Your task to perform on an android device: Open calendar and show me the first week of next month Image 0: 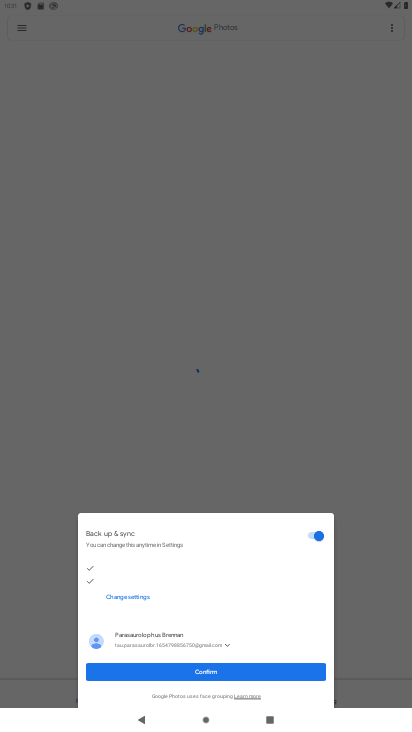
Step 0: press home button
Your task to perform on an android device: Open calendar and show me the first week of next month Image 1: 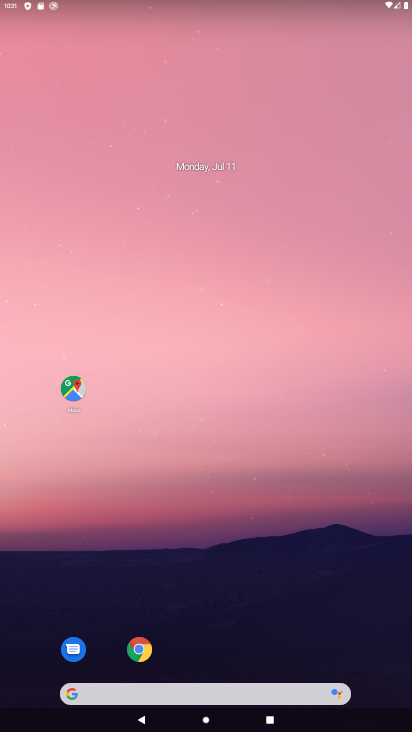
Step 1: drag from (305, 596) to (283, 130)
Your task to perform on an android device: Open calendar and show me the first week of next month Image 2: 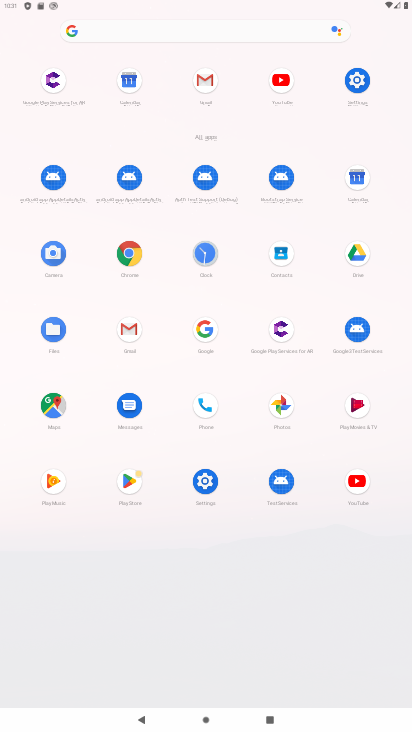
Step 2: click (353, 177)
Your task to perform on an android device: Open calendar and show me the first week of next month Image 3: 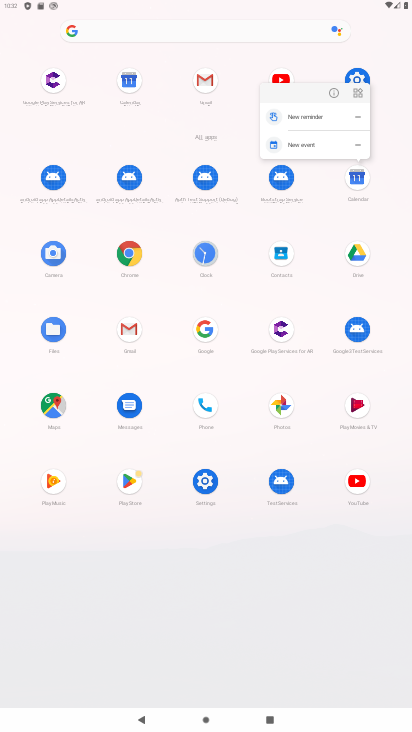
Step 3: click (355, 179)
Your task to perform on an android device: Open calendar and show me the first week of next month Image 4: 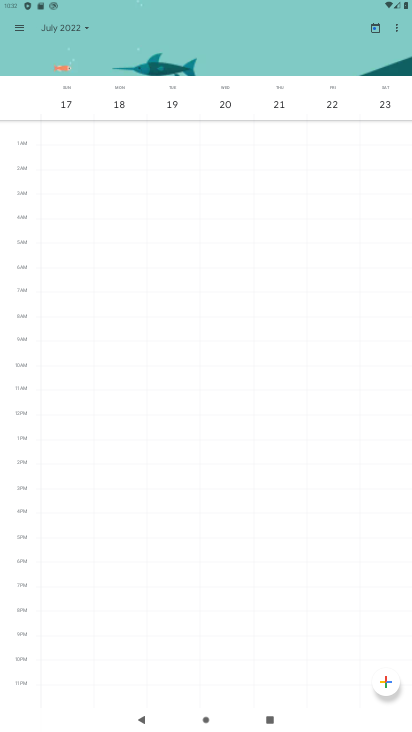
Step 4: click (65, 24)
Your task to perform on an android device: Open calendar and show me the first week of next month Image 5: 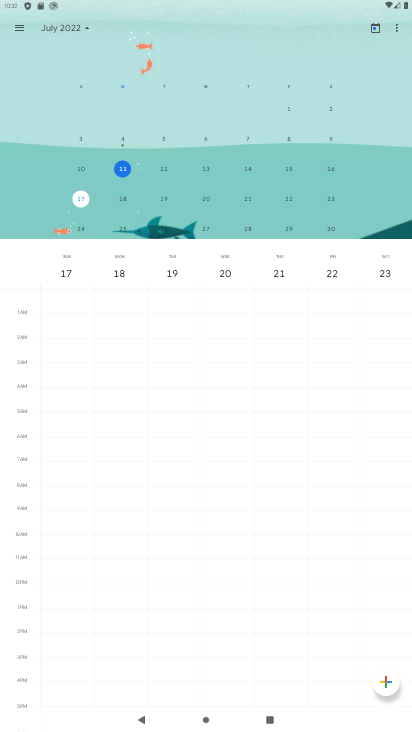
Step 5: drag from (323, 174) to (12, 144)
Your task to perform on an android device: Open calendar and show me the first week of next month Image 6: 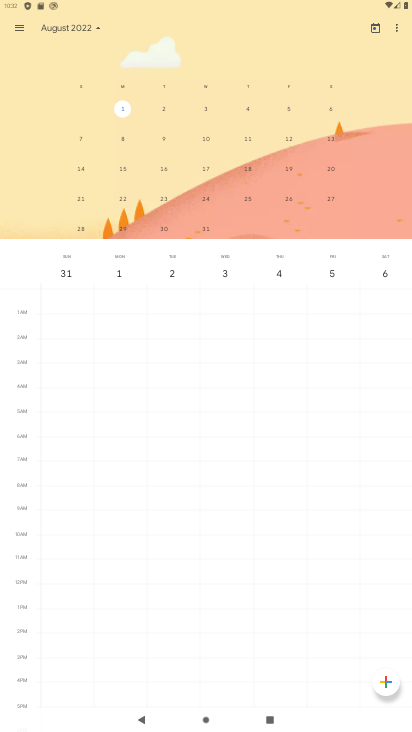
Step 6: click (121, 110)
Your task to perform on an android device: Open calendar and show me the first week of next month Image 7: 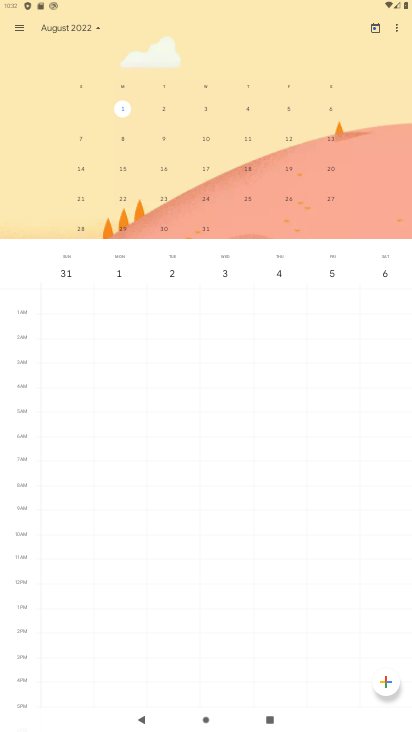
Step 7: task complete